Your task to perform on an android device: Open Youtube and go to the subscriptions tab Image 0: 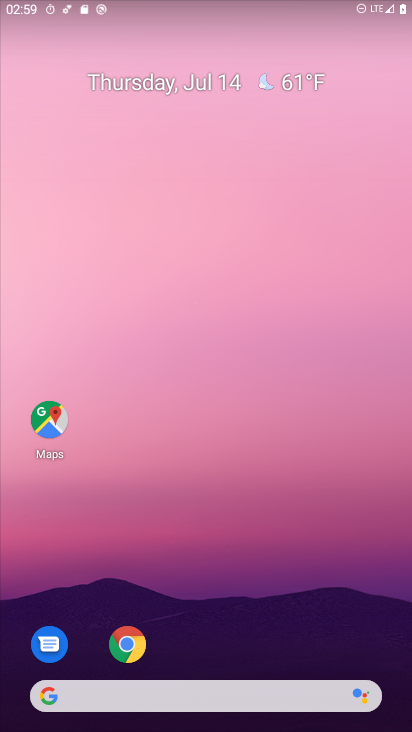
Step 0: drag from (276, 527) to (291, 21)
Your task to perform on an android device: Open Youtube and go to the subscriptions tab Image 1: 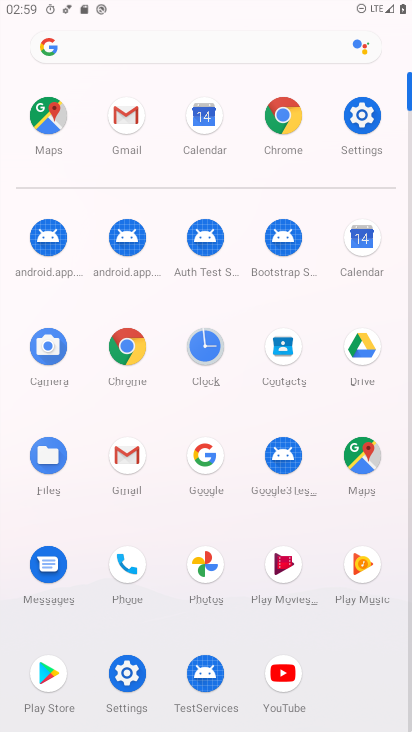
Step 1: click (286, 673)
Your task to perform on an android device: Open Youtube and go to the subscriptions tab Image 2: 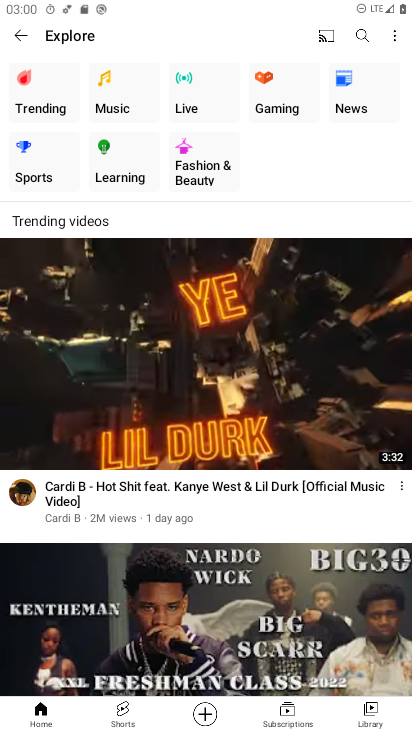
Step 2: click (297, 711)
Your task to perform on an android device: Open Youtube and go to the subscriptions tab Image 3: 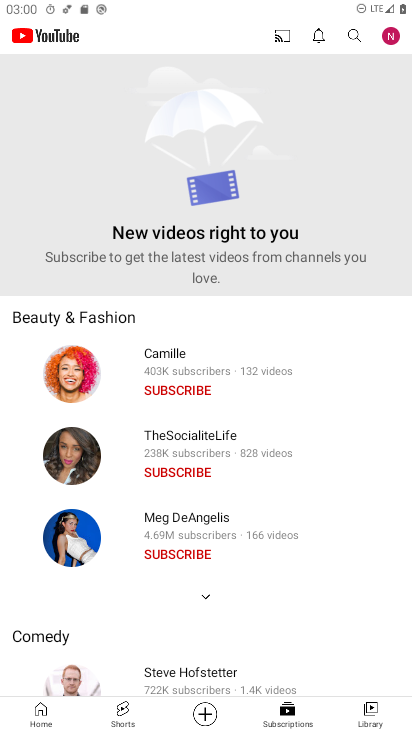
Step 3: task complete